Your task to perform on an android device: Go to Reddit.com Image 0: 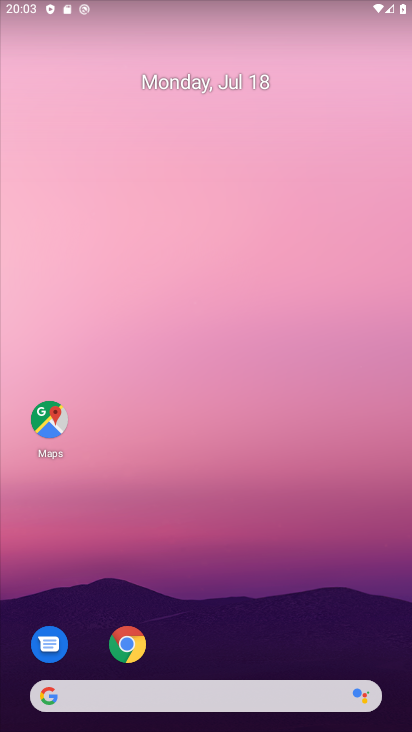
Step 0: click (128, 645)
Your task to perform on an android device: Go to Reddit.com Image 1: 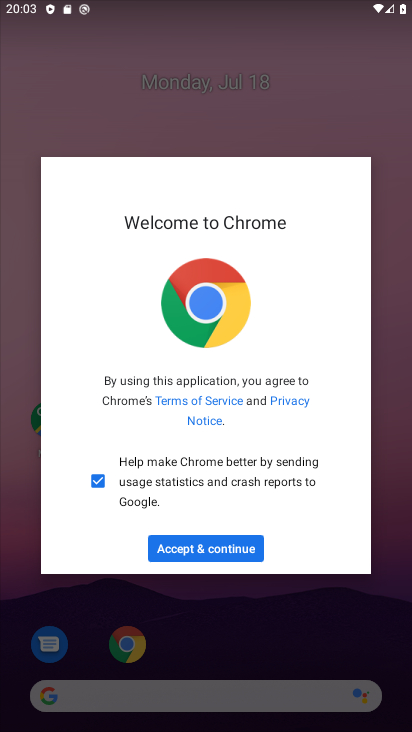
Step 1: click (197, 551)
Your task to perform on an android device: Go to Reddit.com Image 2: 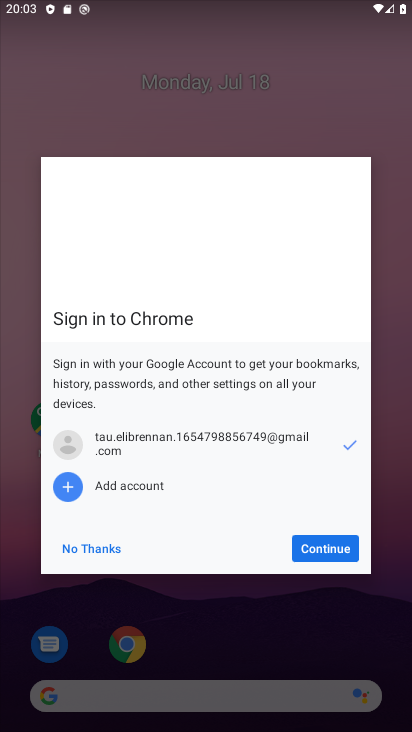
Step 2: click (311, 547)
Your task to perform on an android device: Go to Reddit.com Image 3: 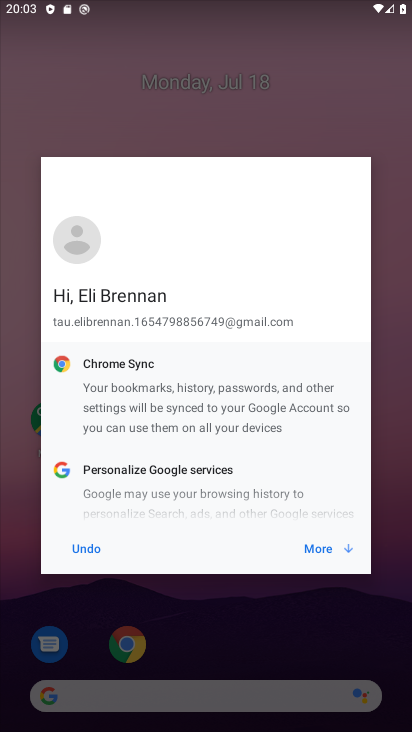
Step 3: click (315, 547)
Your task to perform on an android device: Go to Reddit.com Image 4: 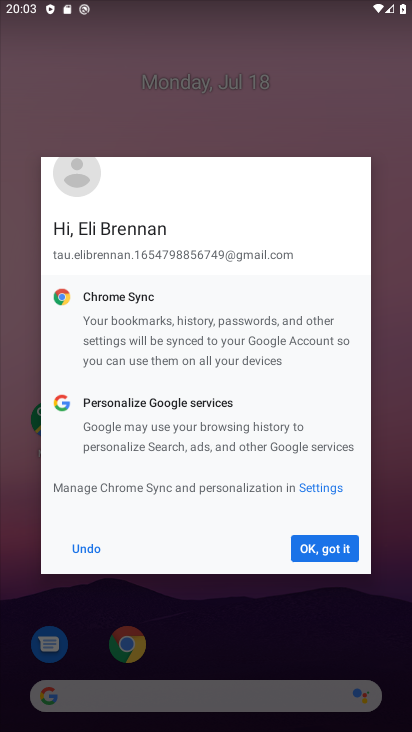
Step 4: click (327, 549)
Your task to perform on an android device: Go to Reddit.com Image 5: 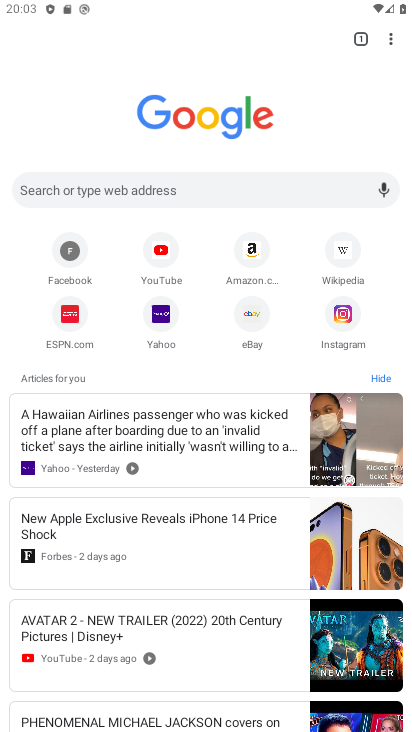
Step 5: click (288, 196)
Your task to perform on an android device: Go to Reddit.com Image 6: 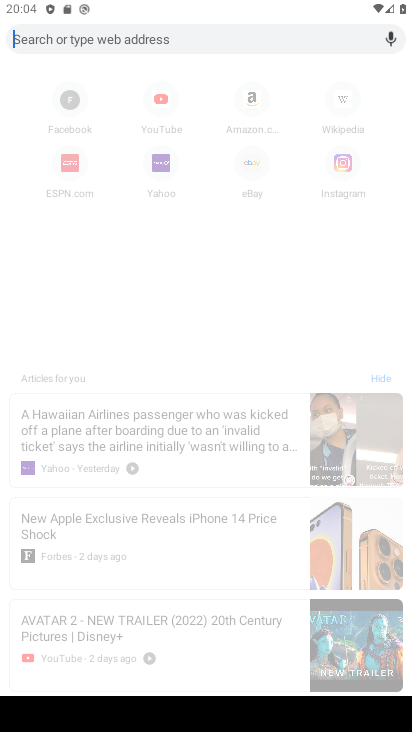
Step 6: type "Reddit.com"
Your task to perform on an android device: Go to Reddit.com Image 7: 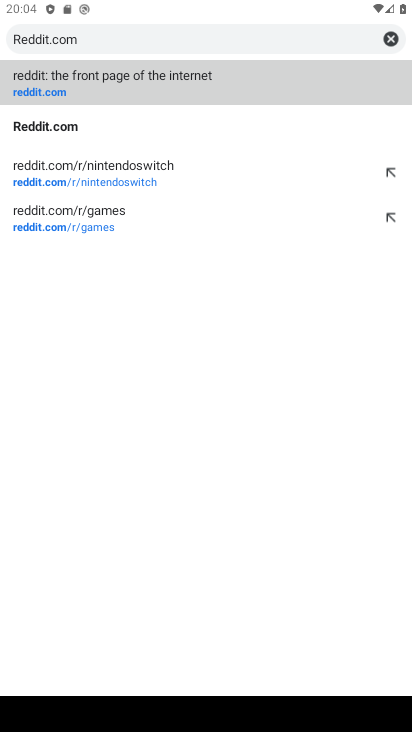
Step 7: click (71, 131)
Your task to perform on an android device: Go to Reddit.com Image 8: 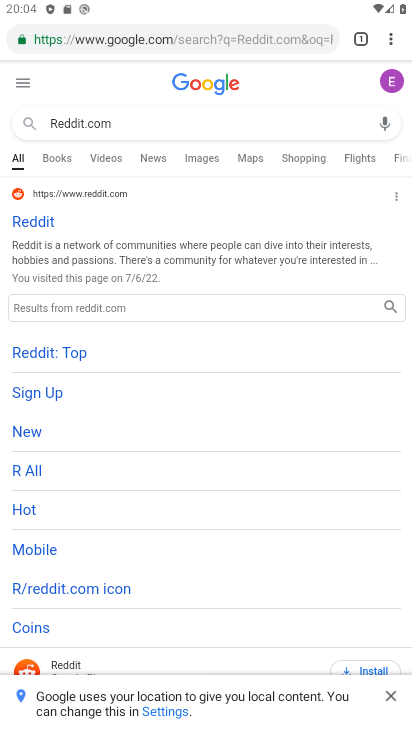
Step 8: click (41, 223)
Your task to perform on an android device: Go to Reddit.com Image 9: 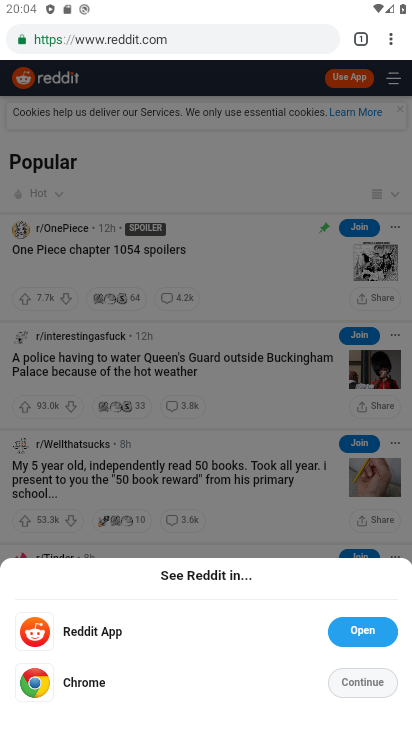
Step 9: click (348, 690)
Your task to perform on an android device: Go to Reddit.com Image 10: 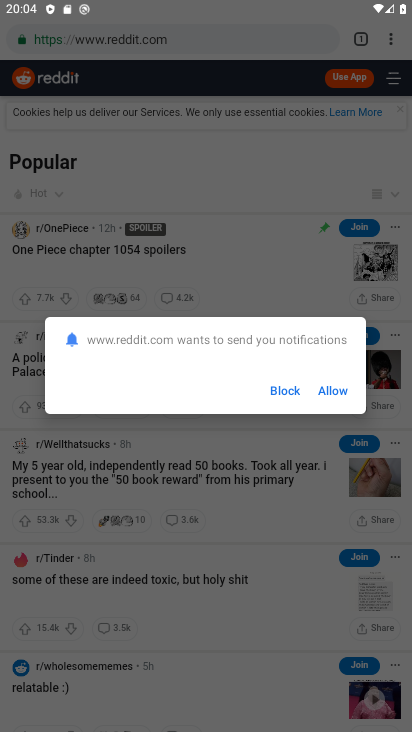
Step 10: click (347, 394)
Your task to perform on an android device: Go to Reddit.com Image 11: 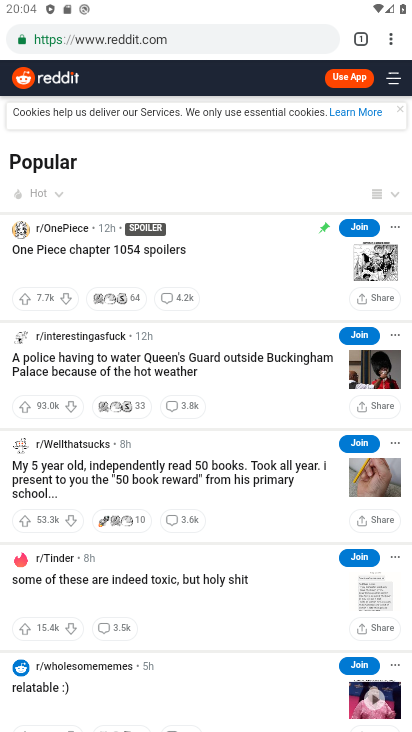
Step 11: task complete